Your task to perform on an android device: View the shopping cart on newegg. Add "logitech g pro" to the cart on newegg, then select checkout. Image 0: 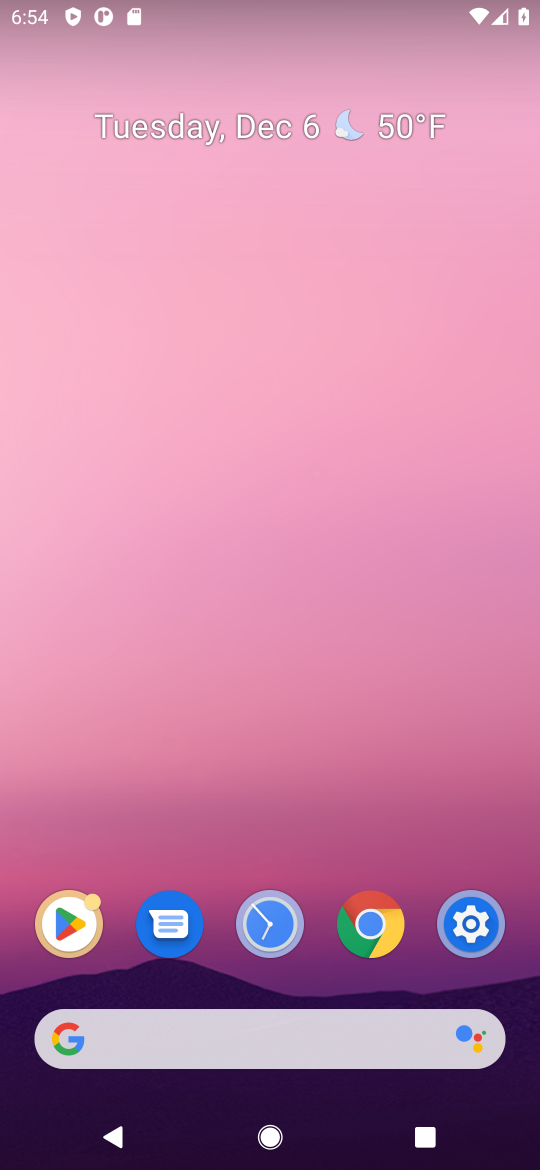
Step 0: click (201, 1048)
Your task to perform on an android device: View the shopping cart on newegg. Add "logitech g pro" to the cart on newegg, then select checkout. Image 1: 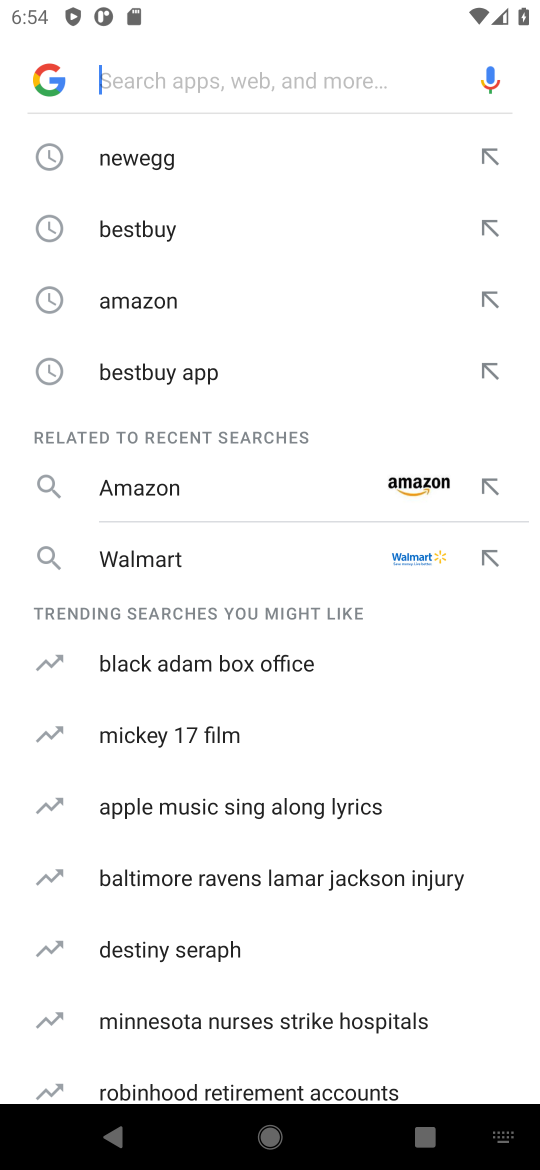
Step 1: click (145, 144)
Your task to perform on an android device: View the shopping cart on newegg. Add "logitech g pro" to the cart on newegg, then select checkout. Image 2: 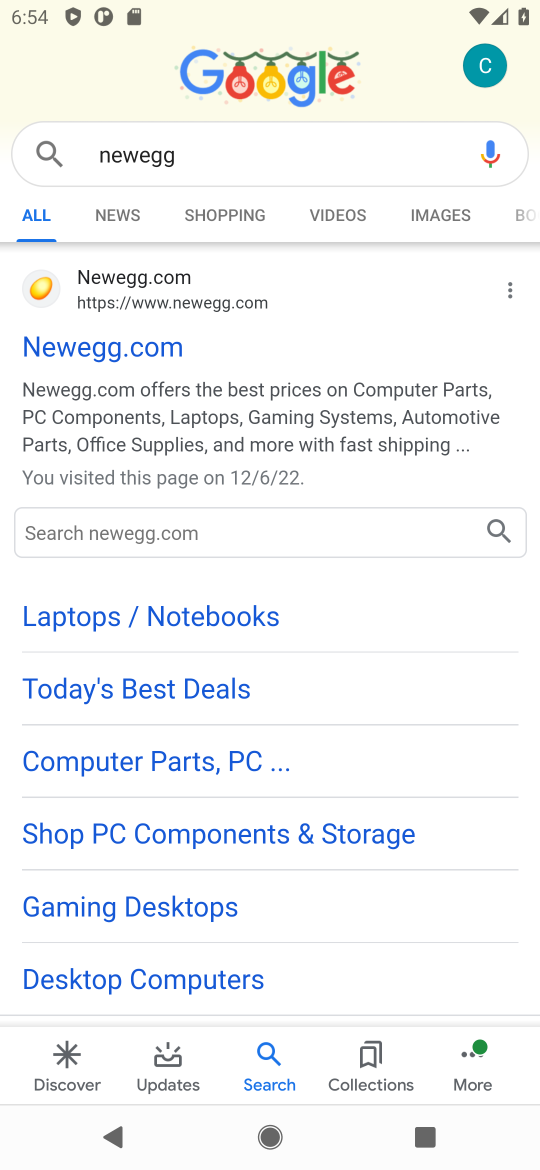
Step 2: click (146, 344)
Your task to perform on an android device: View the shopping cart on newegg. Add "logitech g pro" to the cart on newegg, then select checkout. Image 3: 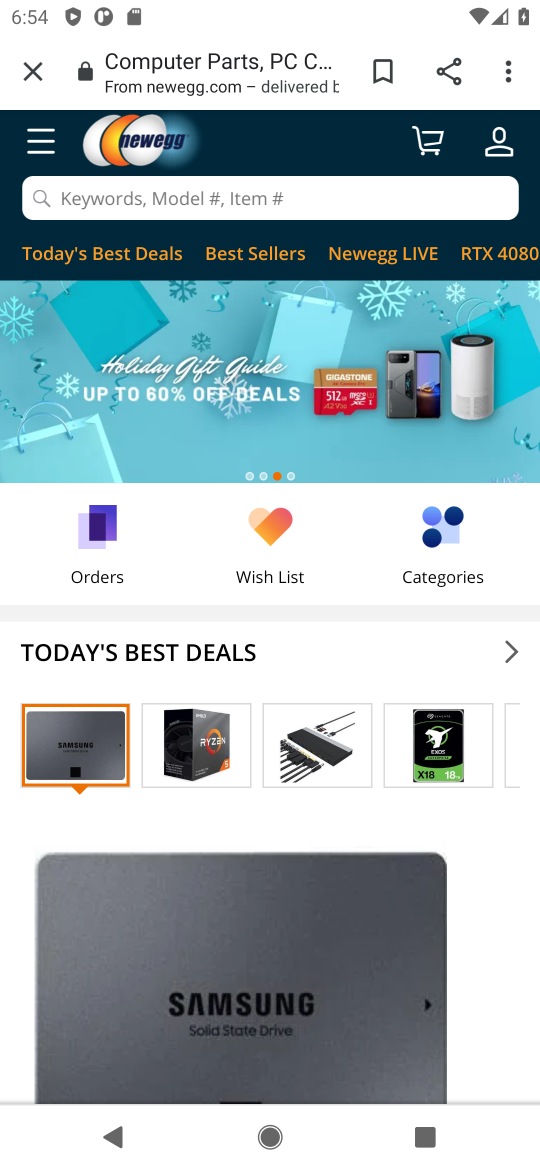
Step 3: click (158, 202)
Your task to perform on an android device: View the shopping cart on newegg. Add "logitech g pro" to the cart on newegg, then select checkout. Image 4: 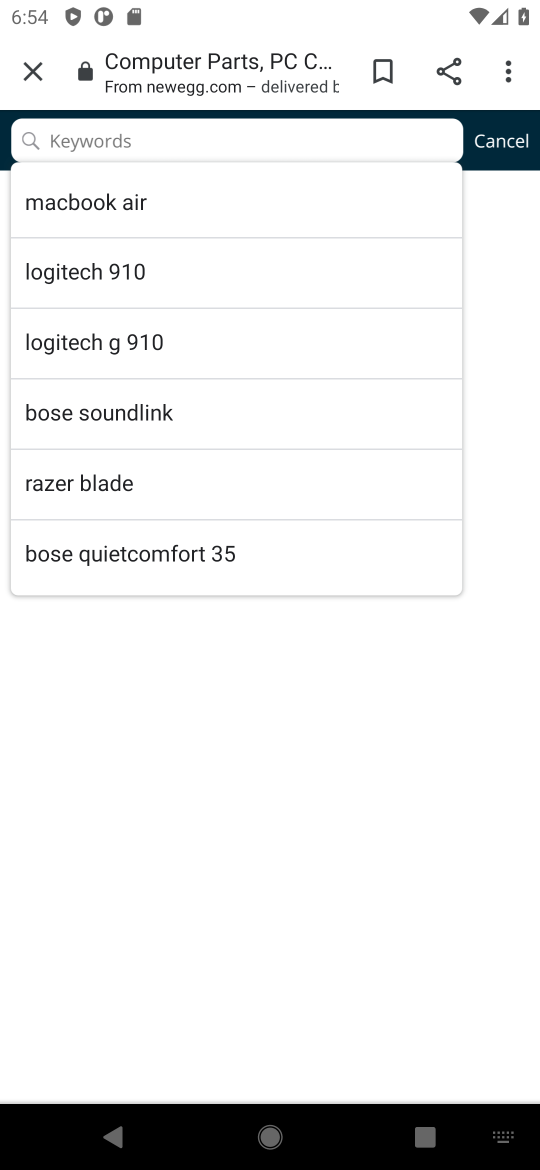
Step 4: type "logitechh g pro"
Your task to perform on an android device: View the shopping cart on newegg. Add "logitech g pro" to the cart on newegg, then select checkout. Image 5: 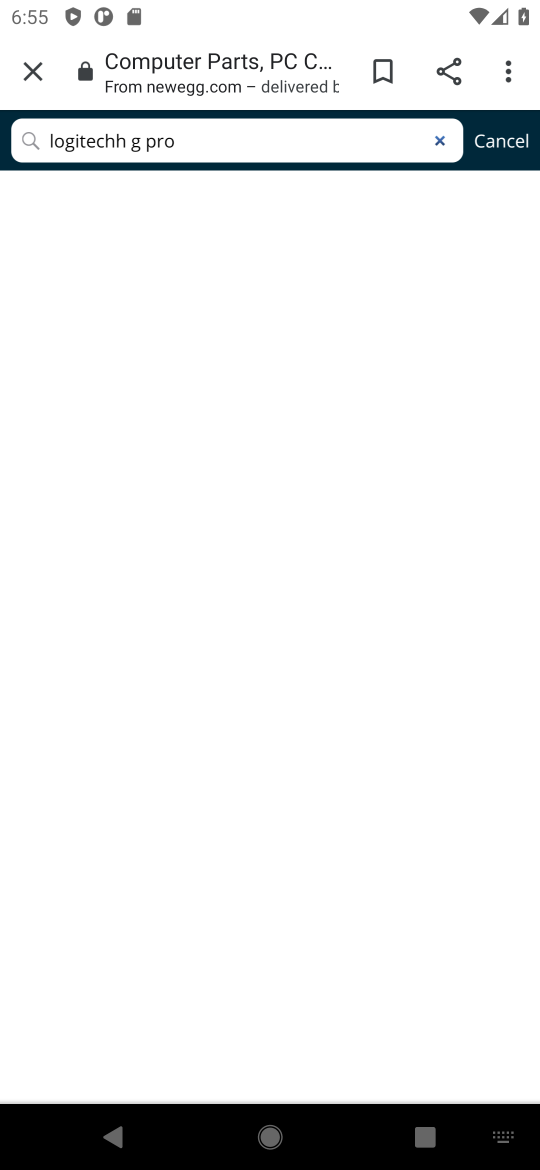
Step 5: task complete